Your task to perform on an android device: star an email in the gmail app Image 0: 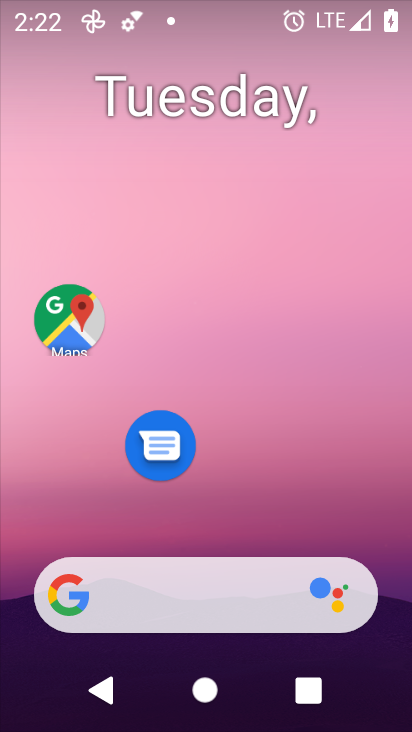
Step 0: drag from (303, 468) to (240, 111)
Your task to perform on an android device: star an email in the gmail app Image 1: 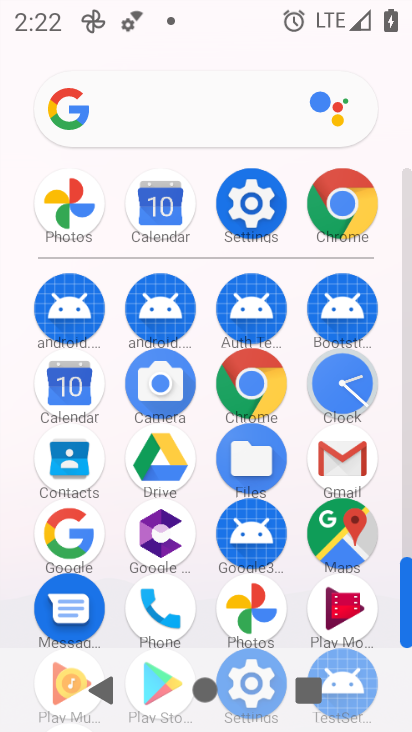
Step 1: click (342, 445)
Your task to perform on an android device: star an email in the gmail app Image 2: 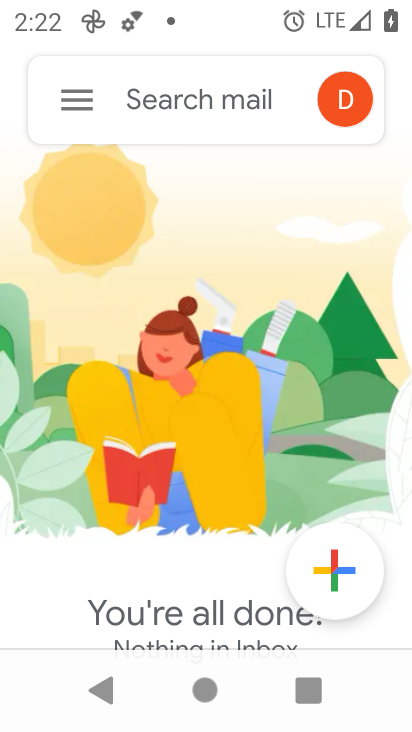
Step 2: click (67, 98)
Your task to perform on an android device: star an email in the gmail app Image 3: 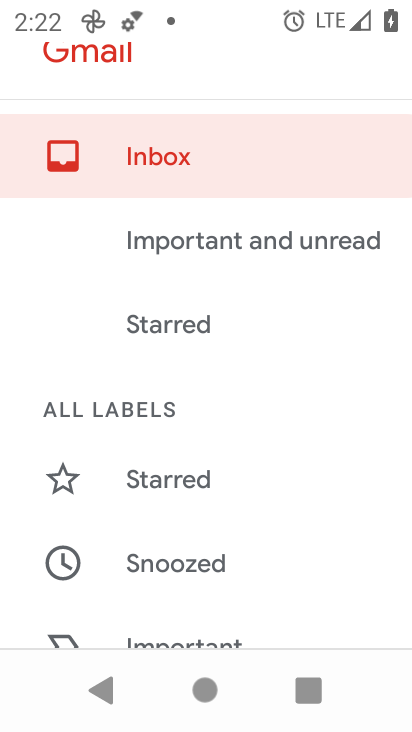
Step 3: drag from (178, 480) to (131, 110)
Your task to perform on an android device: star an email in the gmail app Image 4: 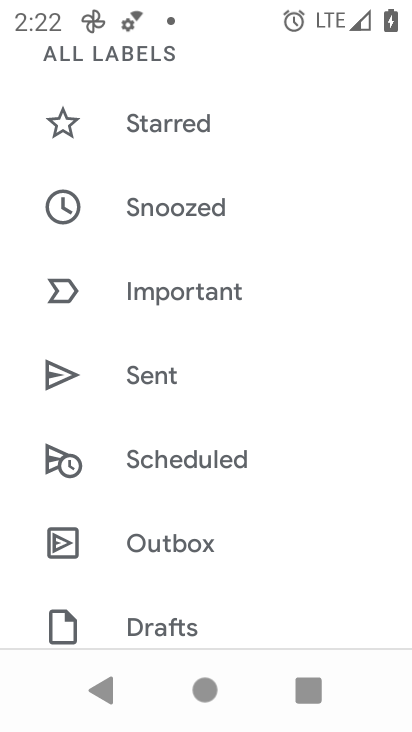
Step 4: drag from (244, 546) to (166, 86)
Your task to perform on an android device: star an email in the gmail app Image 5: 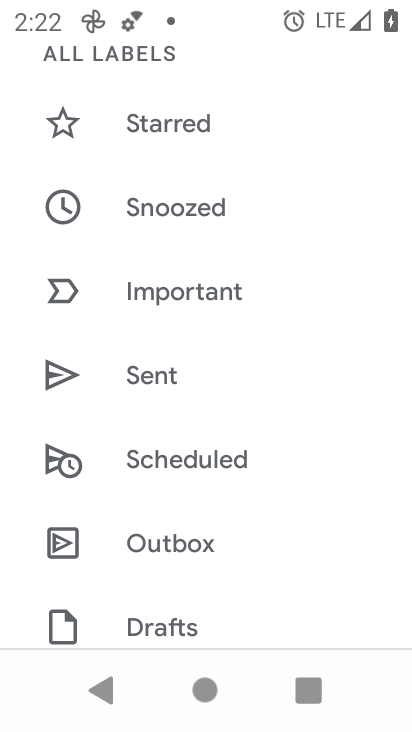
Step 5: drag from (195, 422) to (166, 104)
Your task to perform on an android device: star an email in the gmail app Image 6: 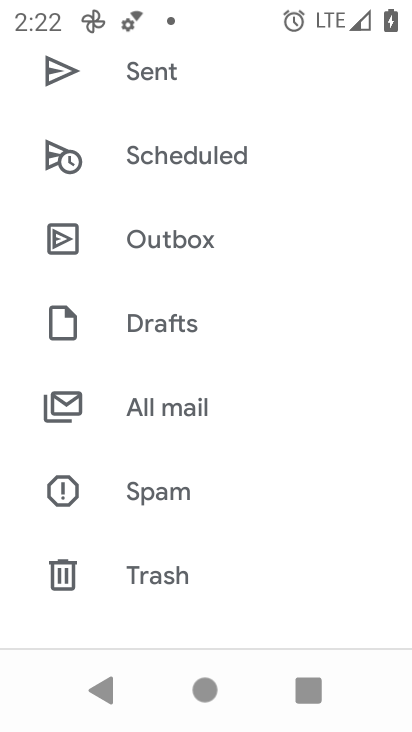
Step 6: click (175, 410)
Your task to perform on an android device: star an email in the gmail app Image 7: 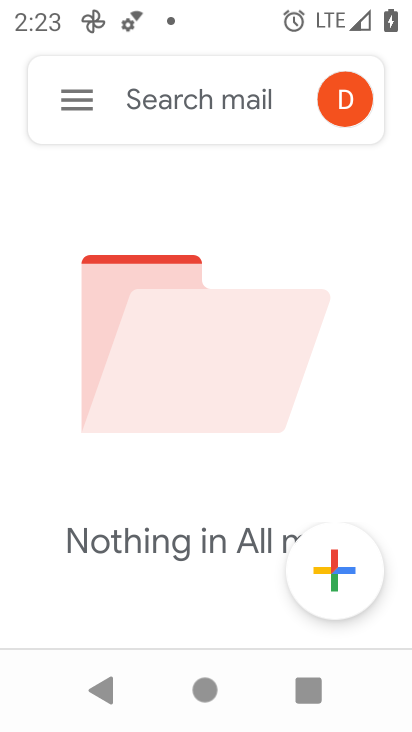
Step 7: task complete